Your task to perform on an android device: Open Chrome and go to settings Image 0: 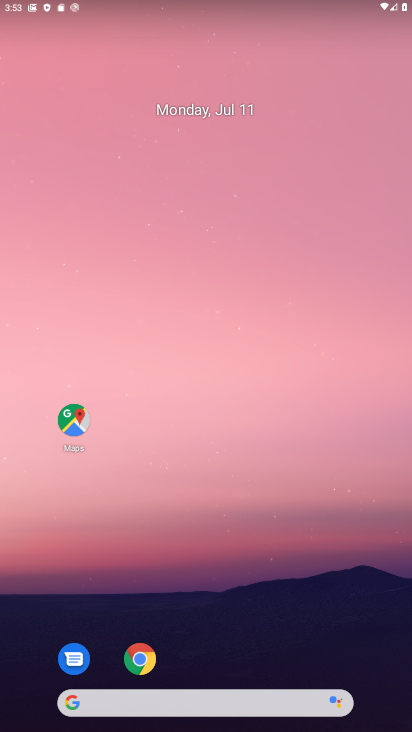
Step 0: click (148, 668)
Your task to perform on an android device: Open Chrome and go to settings Image 1: 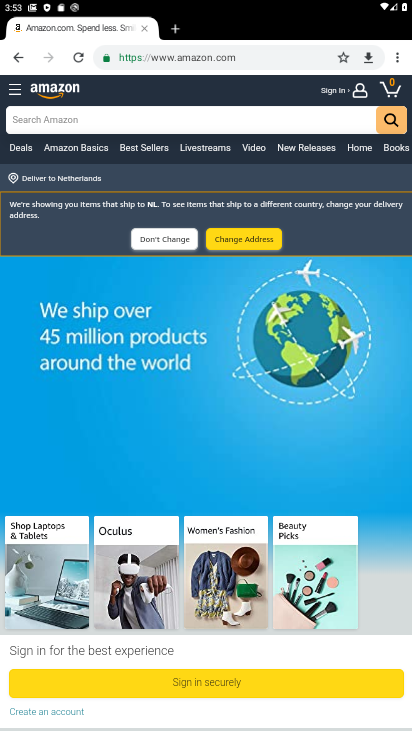
Step 1: click (393, 61)
Your task to perform on an android device: Open Chrome and go to settings Image 2: 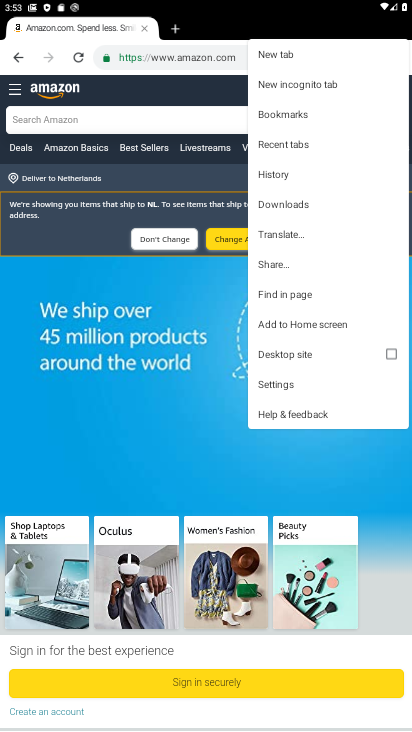
Step 2: click (260, 382)
Your task to perform on an android device: Open Chrome and go to settings Image 3: 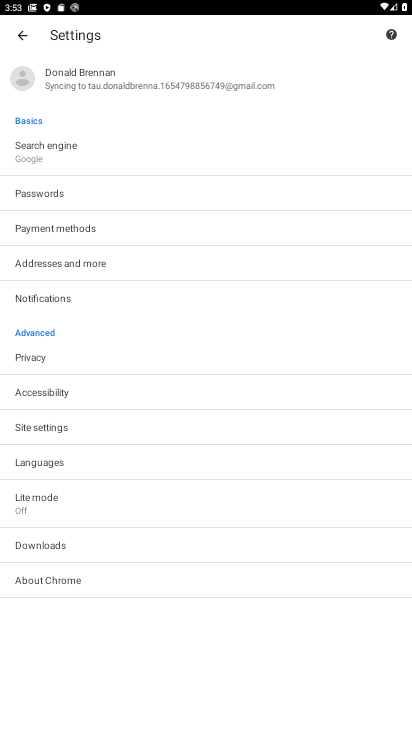
Step 3: task complete